Your task to perform on an android device: Open location settings Image 0: 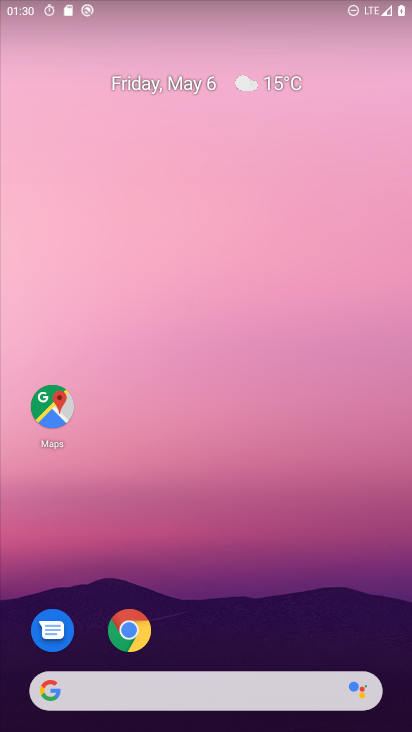
Step 0: drag from (295, 611) to (280, 30)
Your task to perform on an android device: Open location settings Image 1: 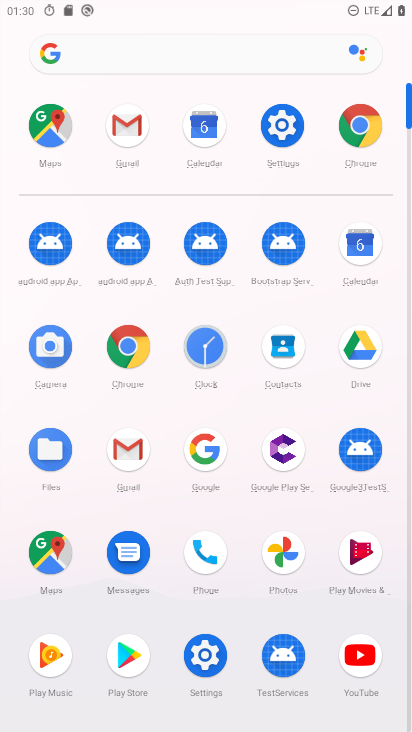
Step 1: click (290, 124)
Your task to perform on an android device: Open location settings Image 2: 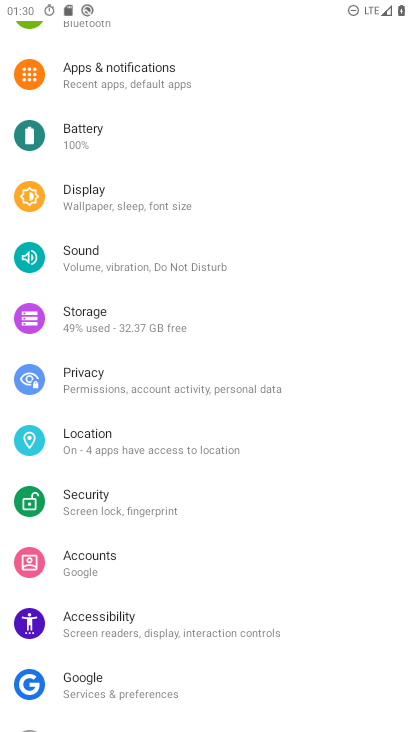
Step 2: click (156, 446)
Your task to perform on an android device: Open location settings Image 3: 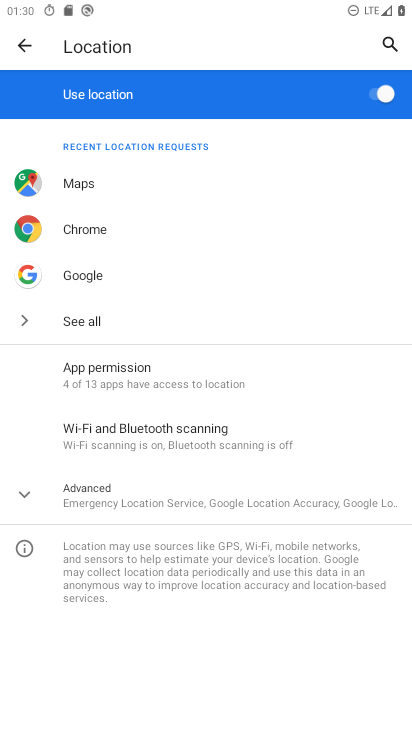
Step 3: task complete